Your task to perform on an android device: Open settings Image 0: 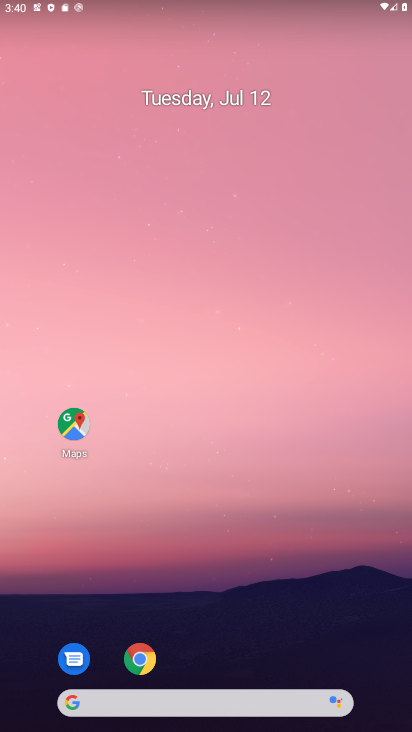
Step 0: drag from (208, 667) to (223, 206)
Your task to perform on an android device: Open settings Image 1: 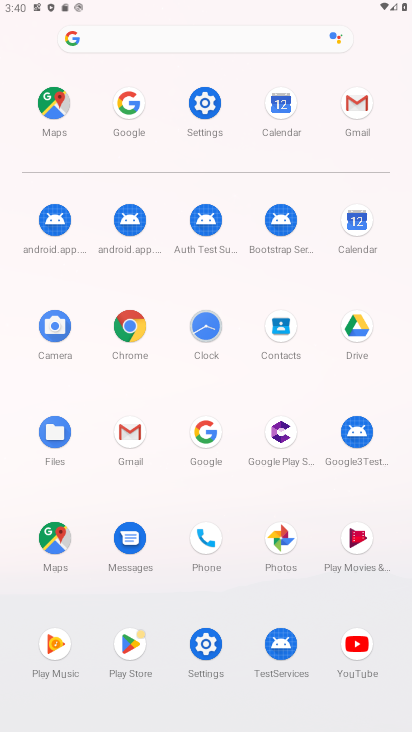
Step 1: click (204, 104)
Your task to perform on an android device: Open settings Image 2: 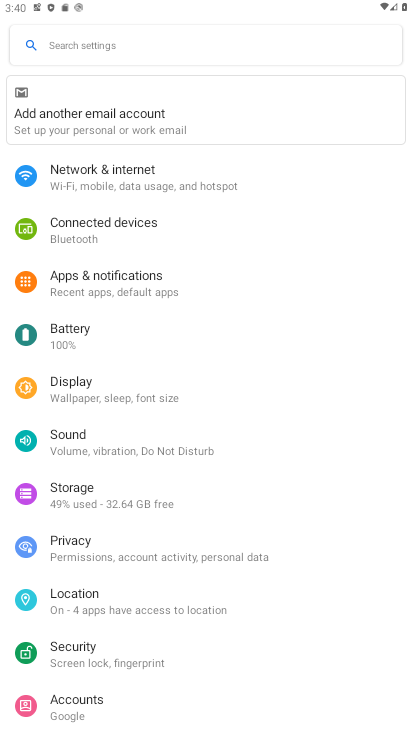
Step 2: task complete